Your task to perform on an android device: Go to display settings Image 0: 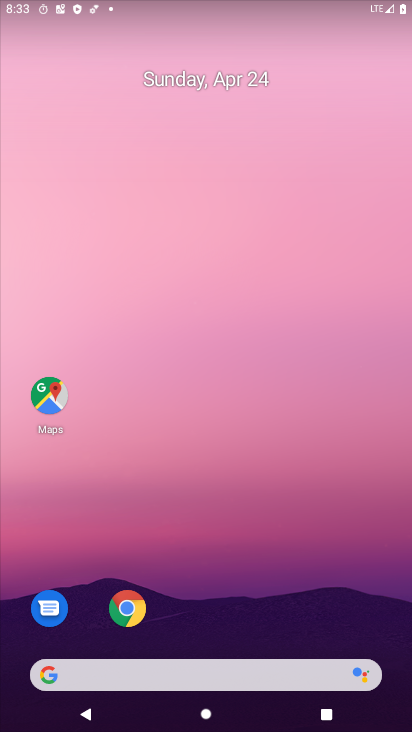
Step 0: drag from (341, 602) to (336, 36)
Your task to perform on an android device: Go to display settings Image 1: 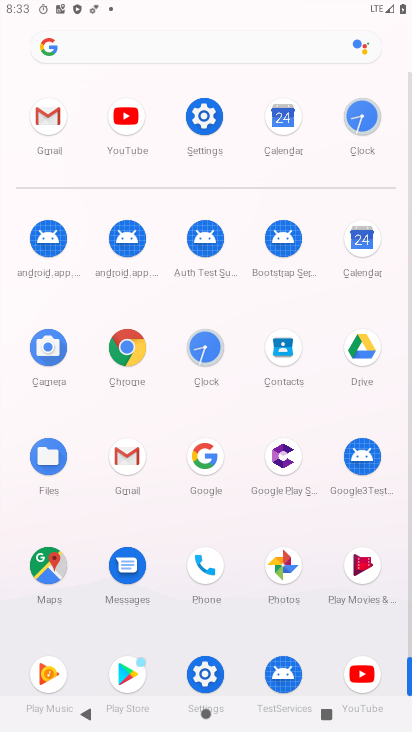
Step 1: click (203, 115)
Your task to perform on an android device: Go to display settings Image 2: 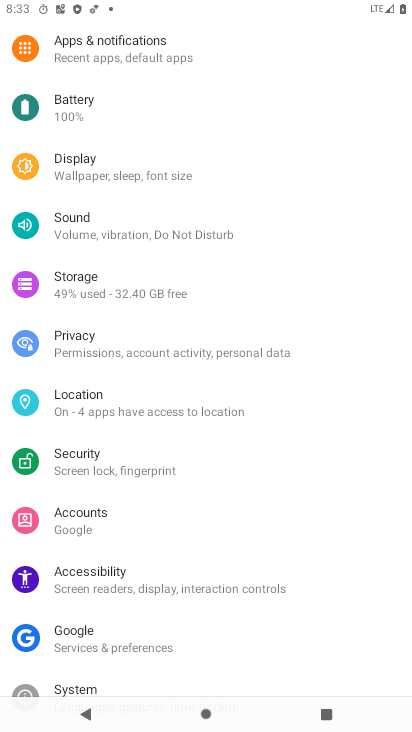
Step 2: click (157, 154)
Your task to perform on an android device: Go to display settings Image 3: 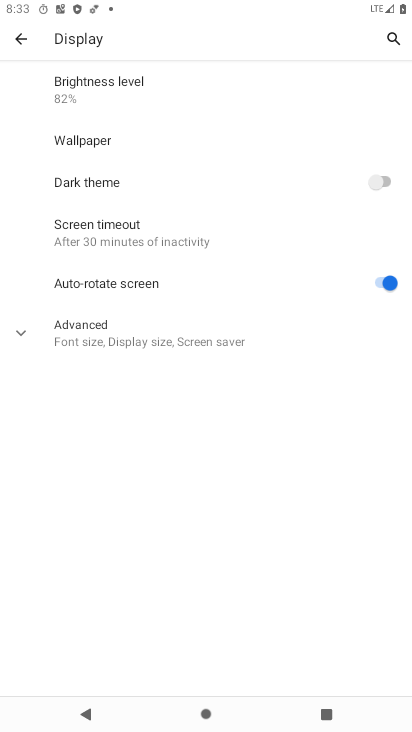
Step 3: task complete